Your task to perform on an android device: change notifications settings Image 0: 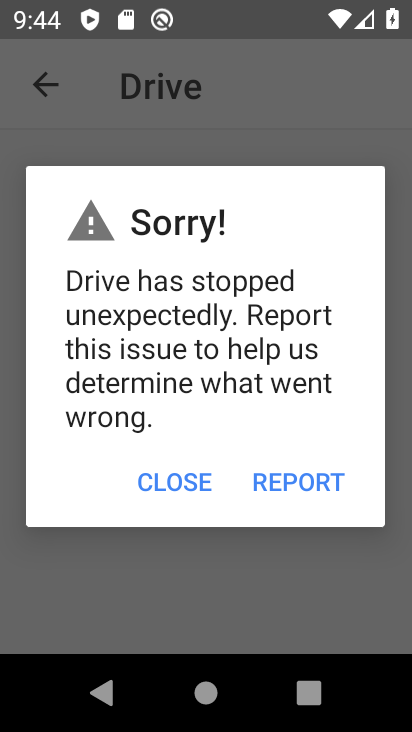
Step 0: press home button
Your task to perform on an android device: change notifications settings Image 1: 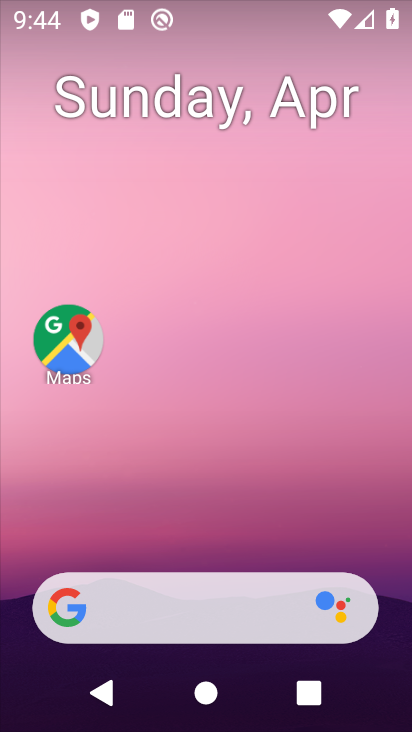
Step 1: drag from (218, 724) to (225, 127)
Your task to perform on an android device: change notifications settings Image 2: 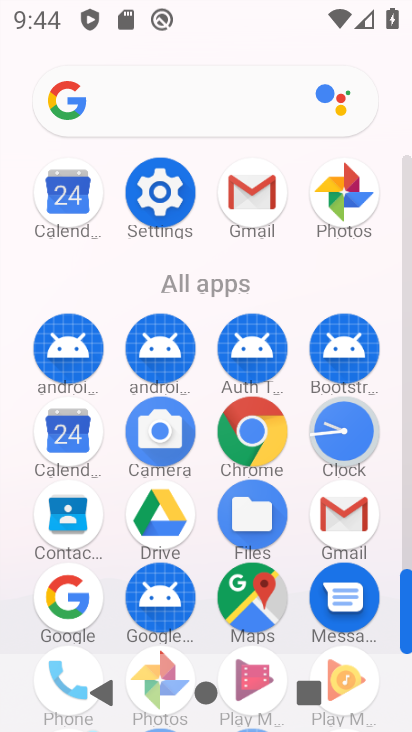
Step 2: click (165, 193)
Your task to perform on an android device: change notifications settings Image 3: 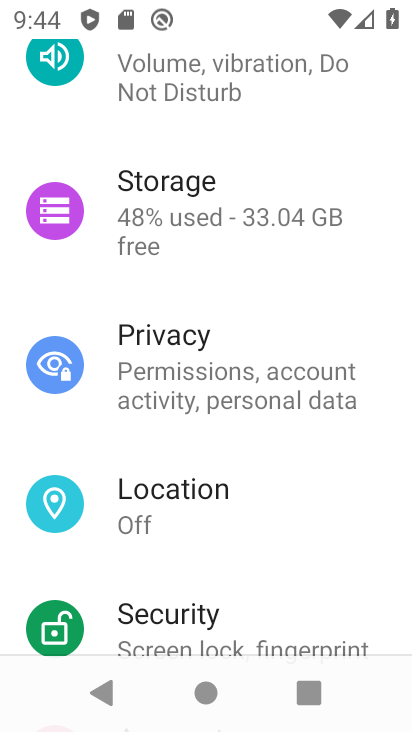
Step 3: drag from (290, 151) to (290, 540)
Your task to perform on an android device: change notifications settings Image 4: 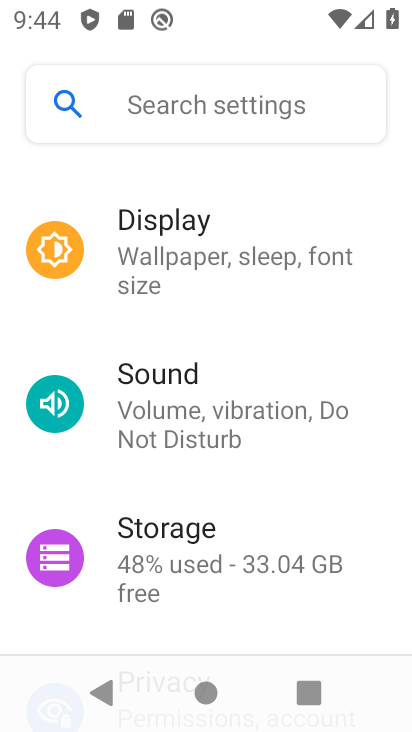
Step 4: drag from (253, 183) to (276, 580)
Your task to perform on an android device: change notifications settings Image 5: 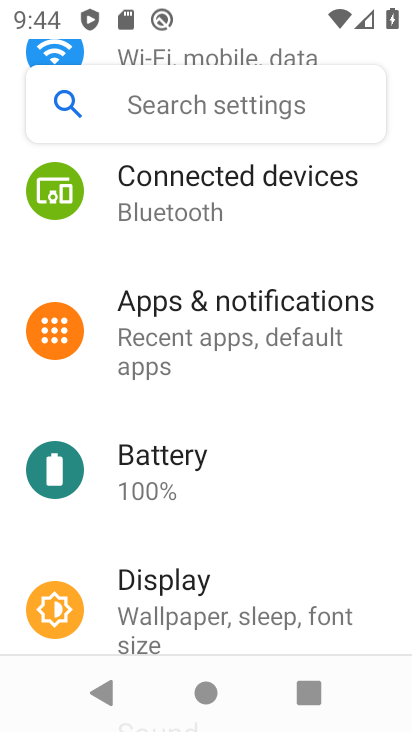
Step 5: click (218, 321)
Your task to perform on an android device: change notifications settings Image 6: 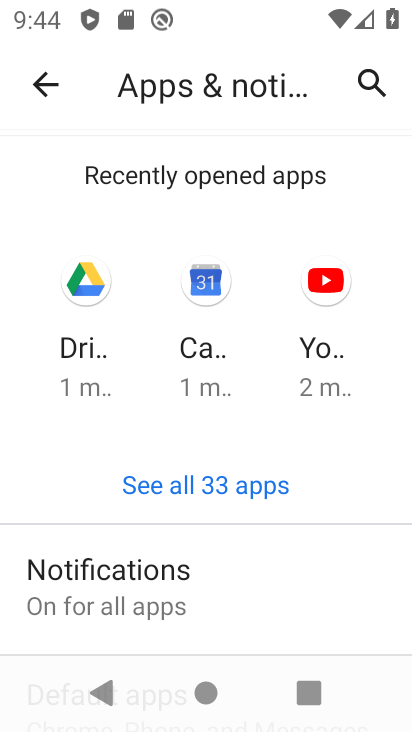
Step 6: drag from (240, 621) to (232, 372)
Your task to perform on an android device: change notifications settings Image 7: 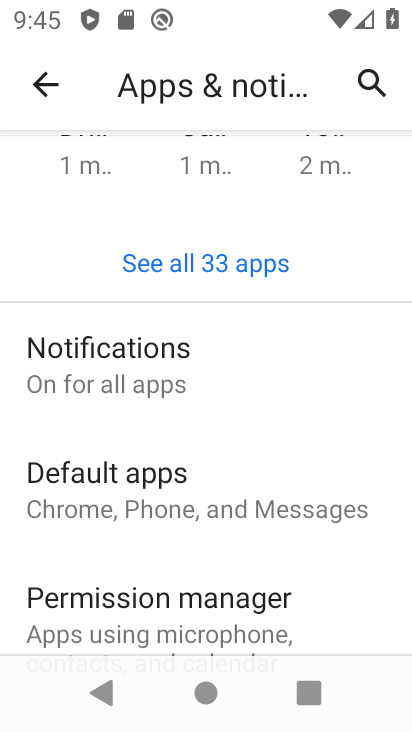
Step 7: click (121, 380)
Your task to perform on an android device: change notifications settings Image 8: 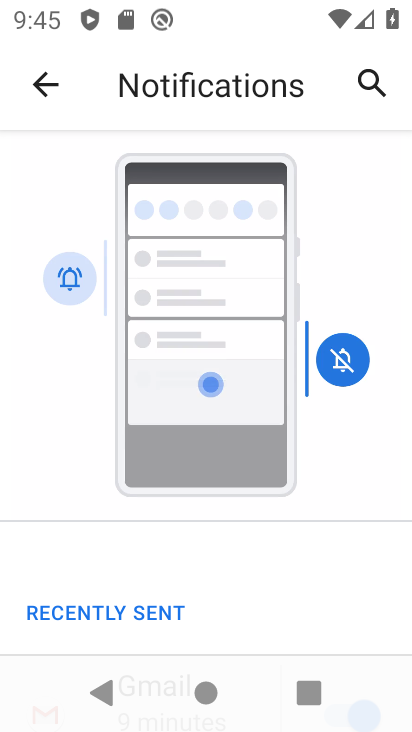
Step 8: drag from (271, 621) to (273, 165)
Your task to perform on an android device: change notifications settings Image 9: 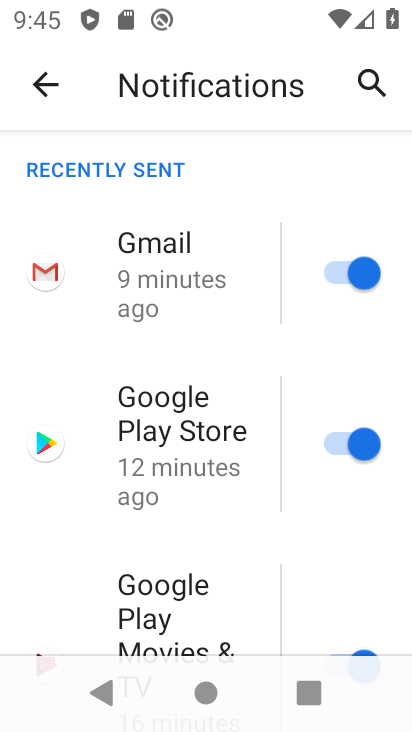
Step 9: drag from (238, 630) to (239, 274)
Your task to perform on an android device: change notifications settings Image 10: 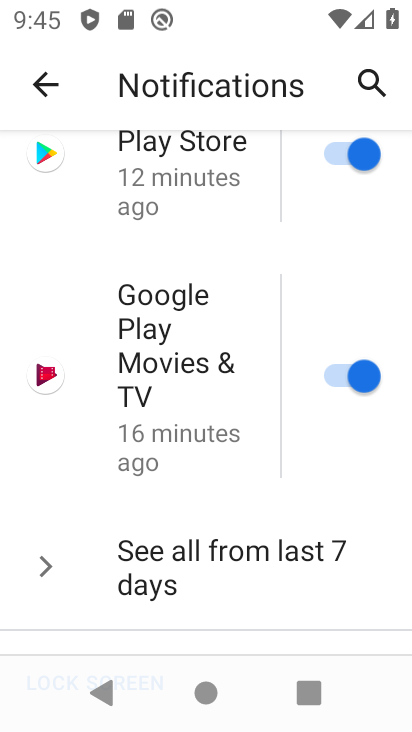
Step 10: drag from (238, 615) to (239, 227)
Your task to perform on an android device: change notifications settings Image 11: 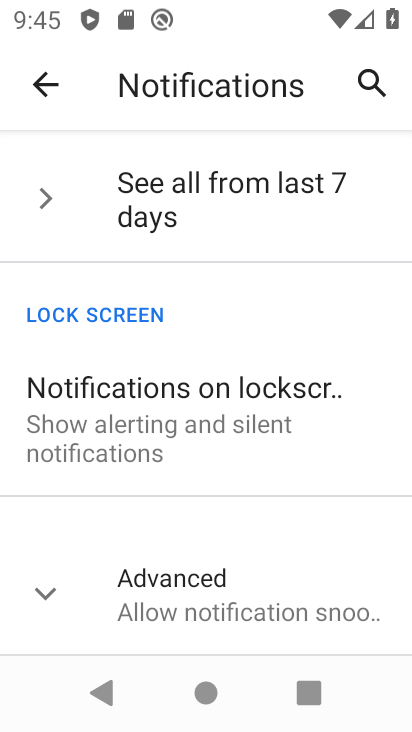
Step 11: drag from (287, 578) to (287, 258)
Your task to perform on an android device: change notifications settings Image 12: 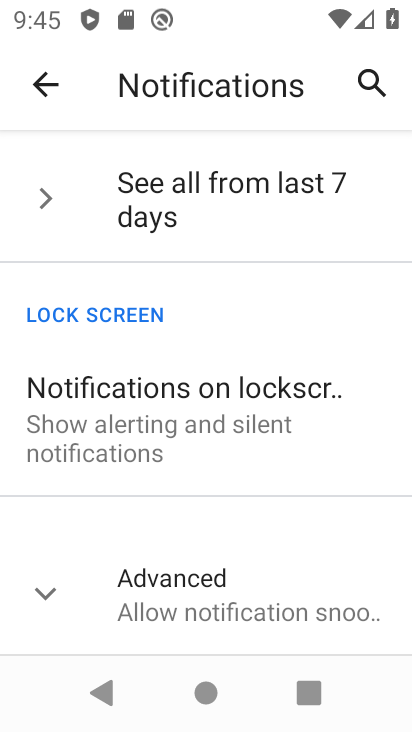
Step 12: click (176, 583)
Your task to perform on an android device: change notifications settings Image 13: 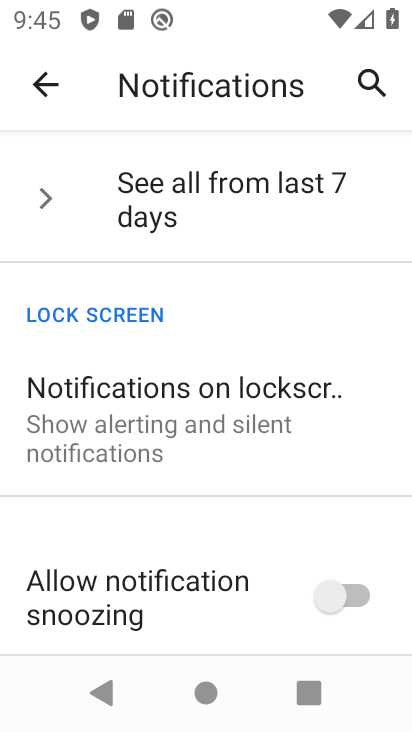
Step 13: drag from (218, 626) to (217, 453)
Your task to perform on an android device: change notifications settings Image 14: 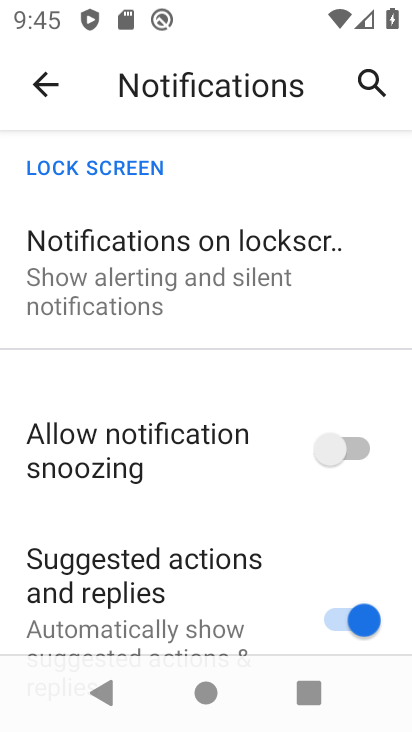
Step 14: click (348, 450)
Your task to perform on an android device: change notifications settings Image 15: 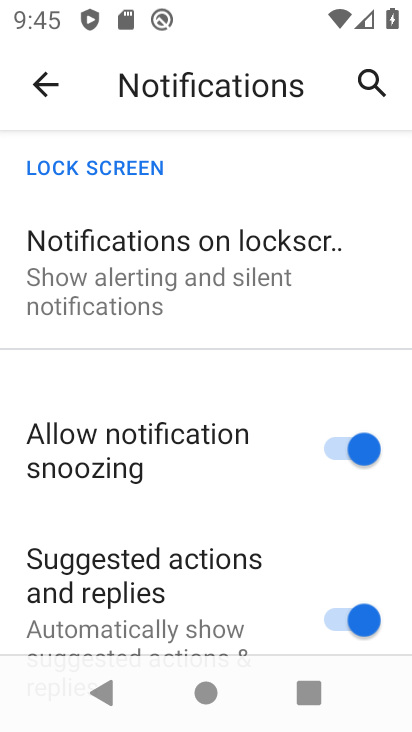
Step 15: task complete